Your task to perform on an android device: delete browsing data in the chrome app Image 0: 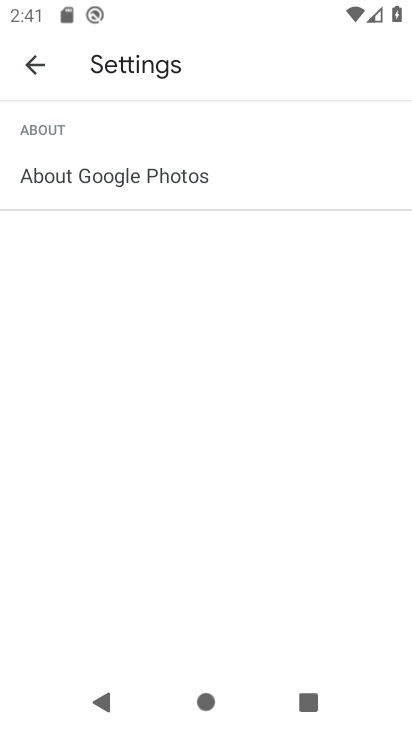
Step 0: press home button
Your task to perform on an android device: delete browsing data in the chrome app Image 1: 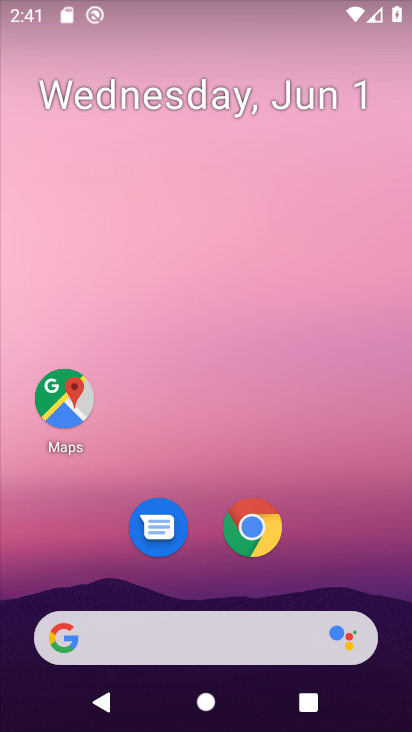
Step 1: click (247, 516)
Your task to perform on an android device: delete browsing data in the chrome app Image 2: 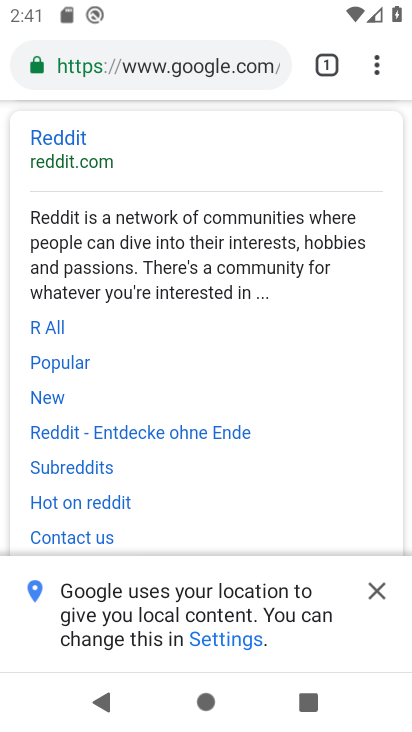
Step 2: click (380, 58)
Your task to perform on an android device: delete browsing data in the chrome app Image 3: 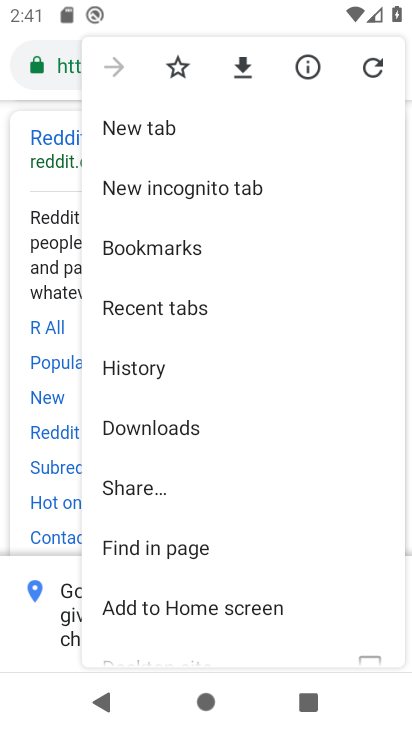
Step 3: click (169, 375)
Your task to perform on an android device: delete browsing data in the chrome app Image 4: 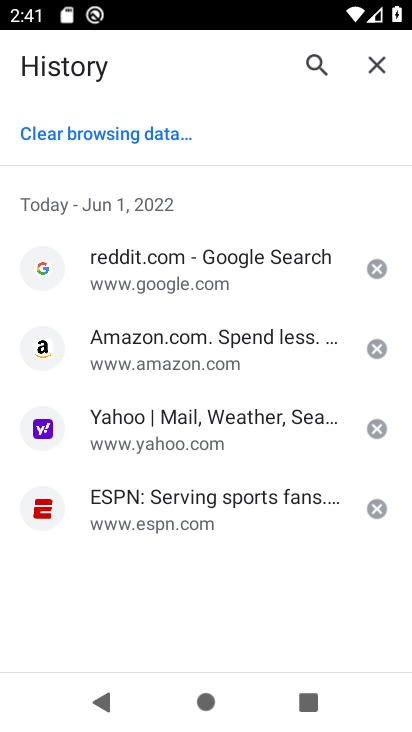
Step 4: click (86, 134)
Your task to perform on an android device: delete browsing data in the chrome app Image 5: 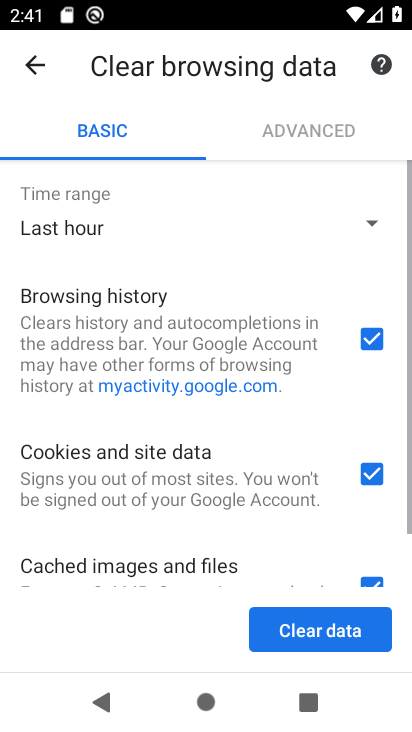
Step 5: drag from (290, 518) to (324, 383)
Your task to perform on an android device: delete browsing data in the chrome app Image 6: 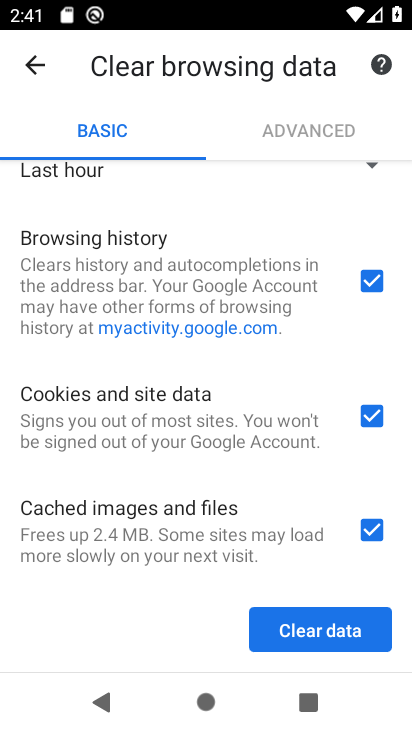
Step 6: click (352, 628)
Your task to perform on an android device: delete browsing data in the chrome app Image 7: 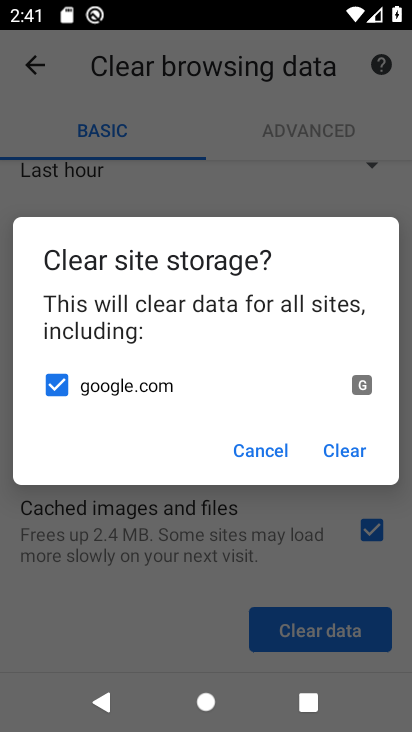
Step 7: click (356, 455)
Your task to perform on an android device: delete browsing data in the chrome app Image 8: 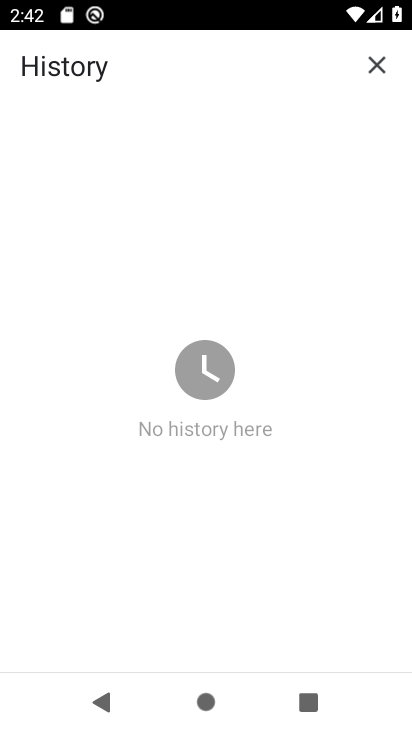
Step 8: task complete